Your task to perform on an android device: Add "bose soundlink mini" to the cart on ebay.com Image 0: 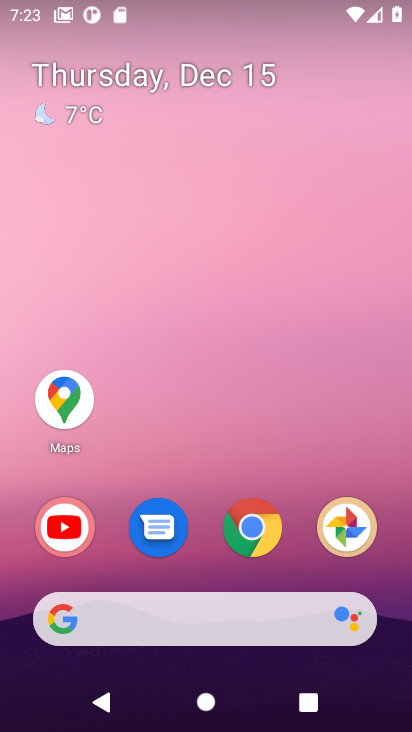
Step 0: click (249, 523)
Your task to perform on an android device: Add "bose soundlink mini" to the cart on ebay.com Image 1: 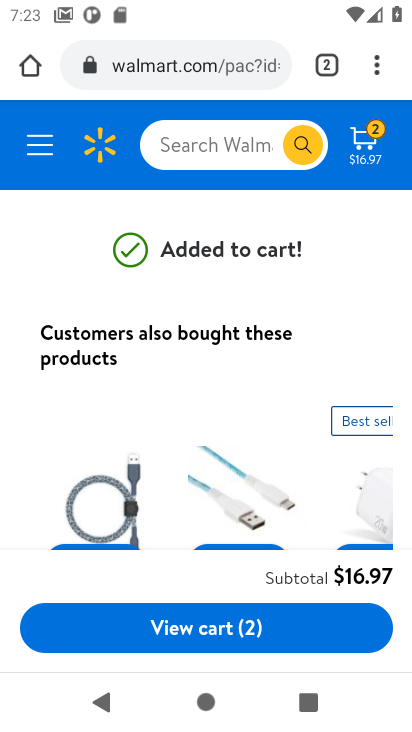
Step 1: click (204, 156)
Your task to perform on an android device: Add "bose soundlink mini" to the cart on ebay.com Image 2: 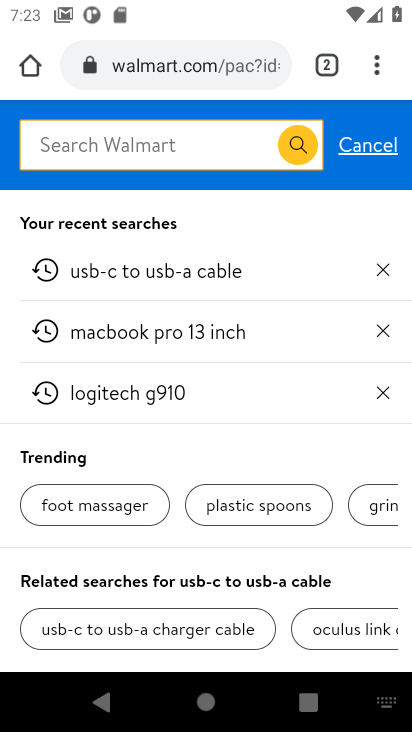
Step 2: click (181, 50)
Your task to perform on an android device: Add "bose soundlink mini" to the cart on ebay.com Image 3: 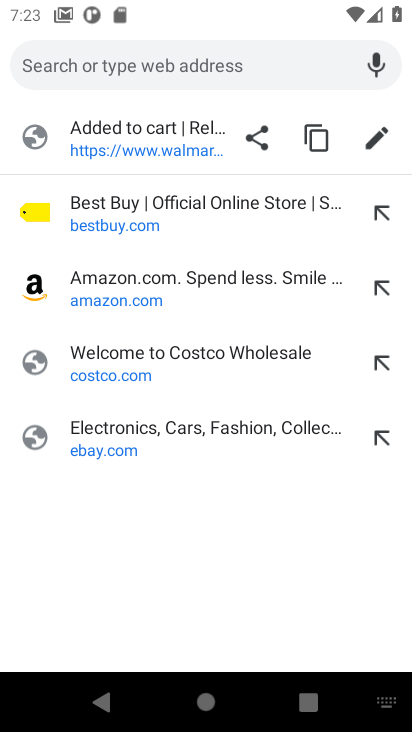
Step 3: type "ebay"
Your task to perform on an android device: Add "bose soundlink mini" to the cart on ebay.com Image 4: 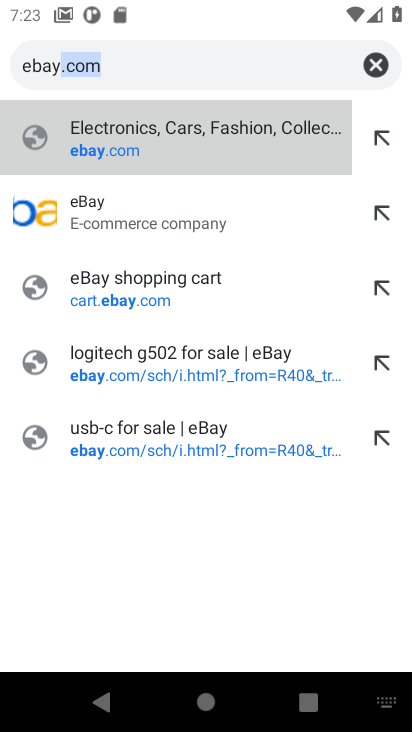
Step 4: click (150, 148)
Your task to perform on an android device: Add "bose soundlink mini" to the cart on ebay.com Image 5: 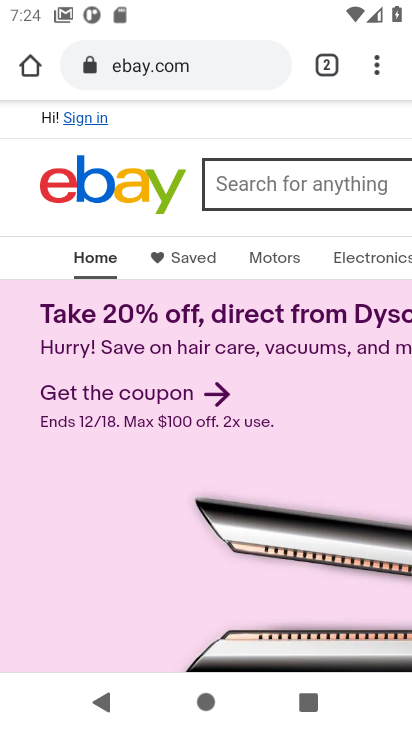
Step 5: click (257, 188)
Your task to perform on an android device: Add "bose soundlink mini" to the cart on ebay.com Image 6: 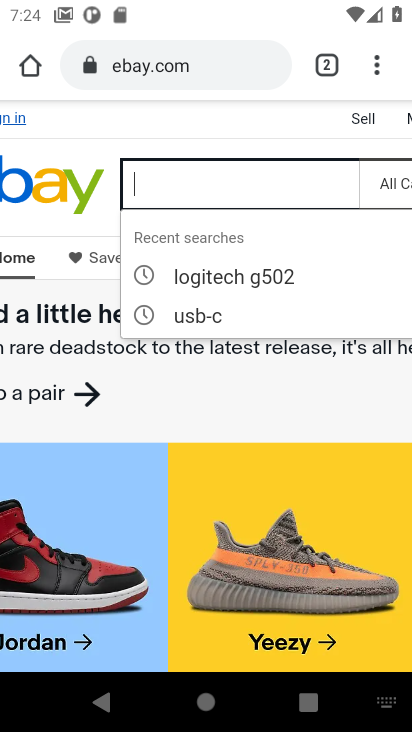
Step 6: type "soundlink"
Your task to perform on an android device: Add "bose soundlink mini" to the cart on ebay.com Image 7: 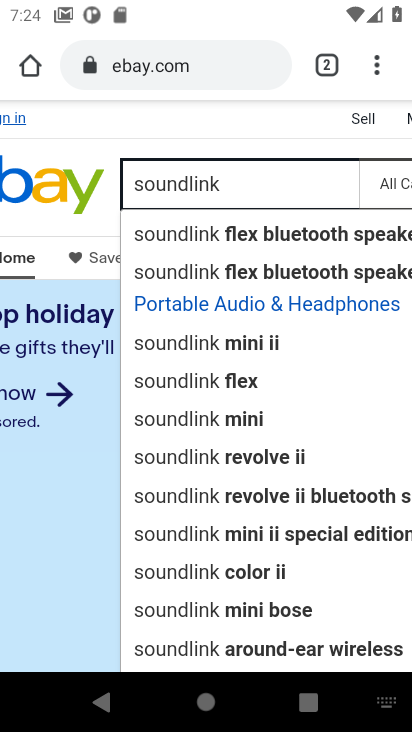
Step 7: drag from (270, 149) to (3, 143)
Your task to perform on an android device: Add "bose soundlink mini" to the cart on ebay.com Image 8: 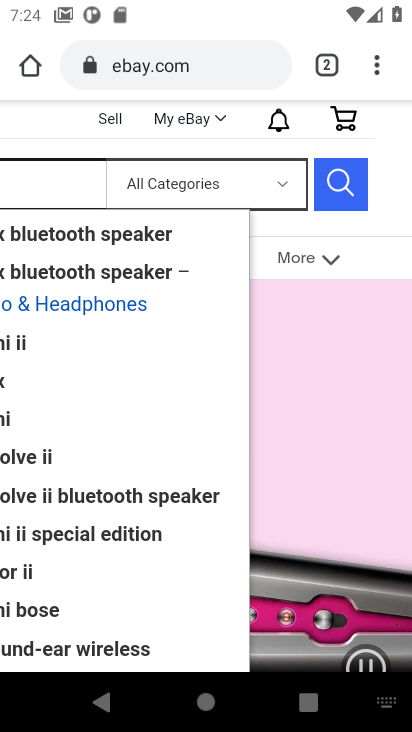
Step 8: click (349, 204)
Your task to perform on an android device: Add "bose soundlink mini" to the cart on ebay.com Image 9: 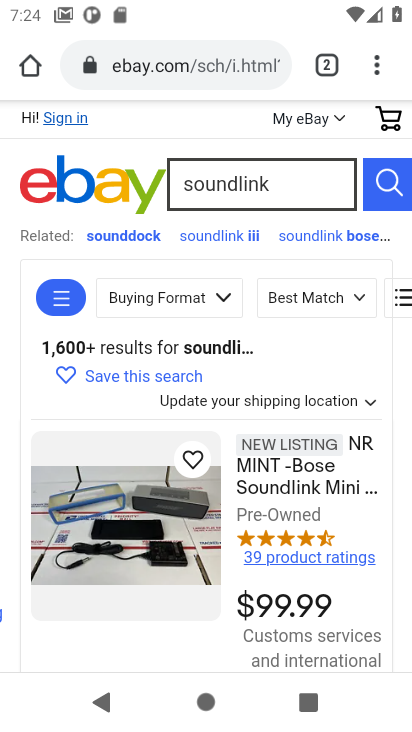
Step 9: click (250, 472)
Your task to perform on an android device: Add "bose soundlink mini" to the cart on ebay.com Image 10: 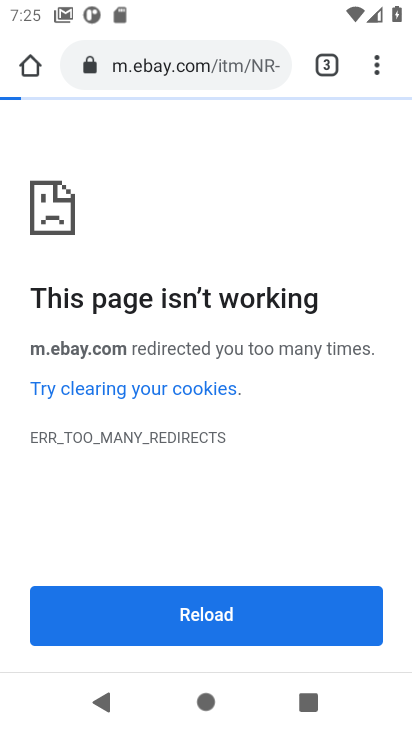
Step 10: click (187, 72)
Your task to perform on an android device: Add "bose soundlink mini" to the cart on ebay.com Image 11: 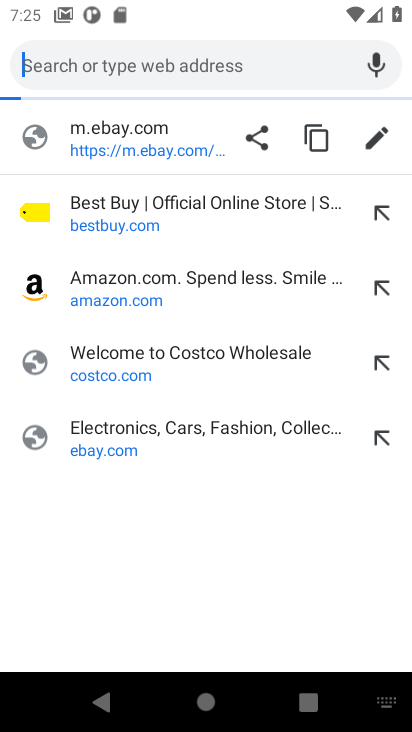
Step 11: click (113, 145)
Your task to perform on an android device: Add "bose soundlink mini" to the cart on ebay.com Image 12: 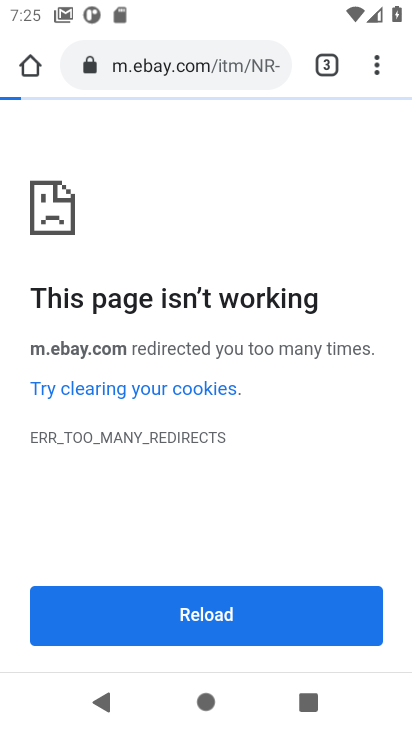
Step 12: task complete